Your task to perform on an android device: Go to Amazon Image 0: 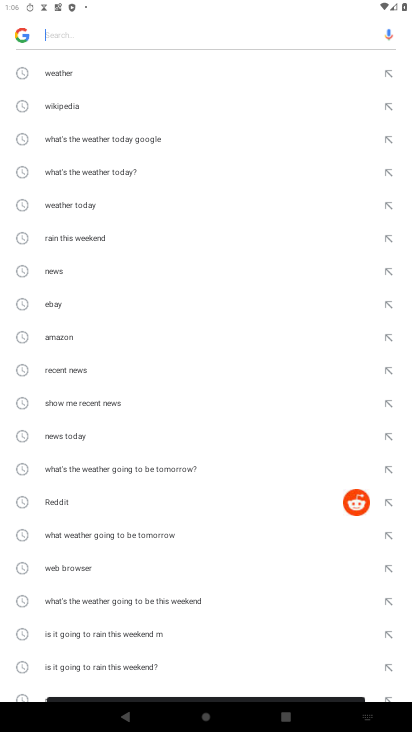
Step 0: press home button
Your task to perform on an android device: Go to Amazon Image 1: 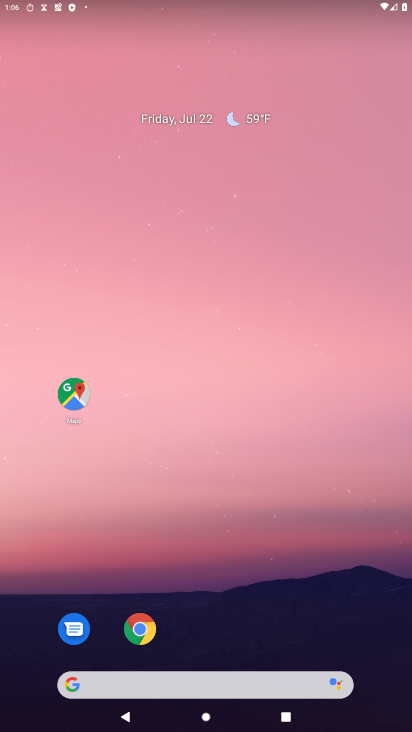
Step 1: drag from (198, 676) to (177, 24)
Your task to perform on an android device: Go to Amazon Image 2: 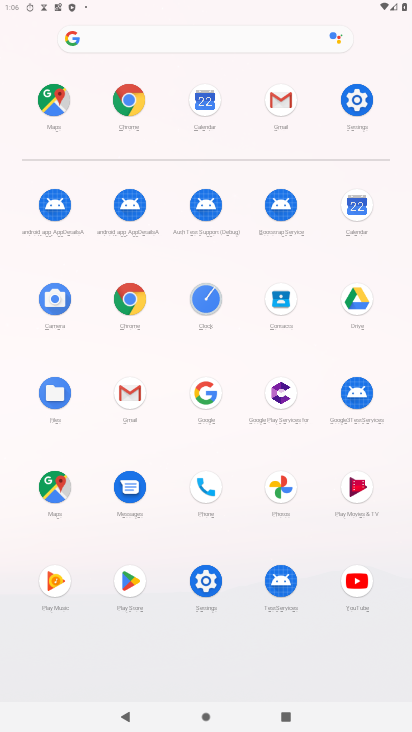
Step 2: click (127, 292)
Your task to perform on an android device: Go to Amazon Image 3: 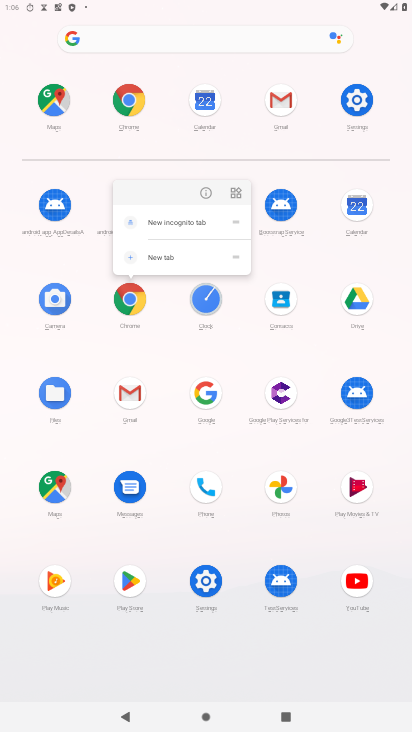
Step 3: click (127, 292)
Your task to perform on an android device: Go to Amazon Image 4: 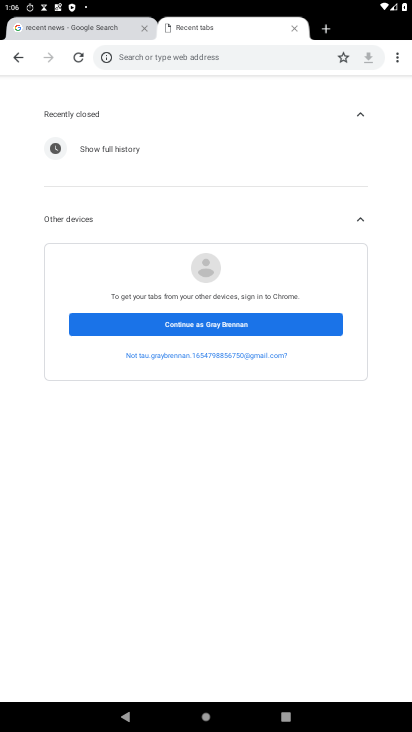
Step 4: click (144, 55)
Your task to perform on an android device: Go to Amazon Image 5: 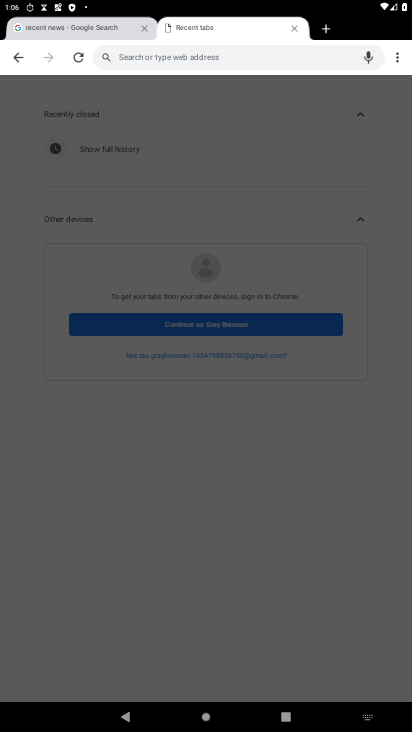
Step 5: type "amazon"
Your task to perform on an android device: Go to Amazon Image 6: 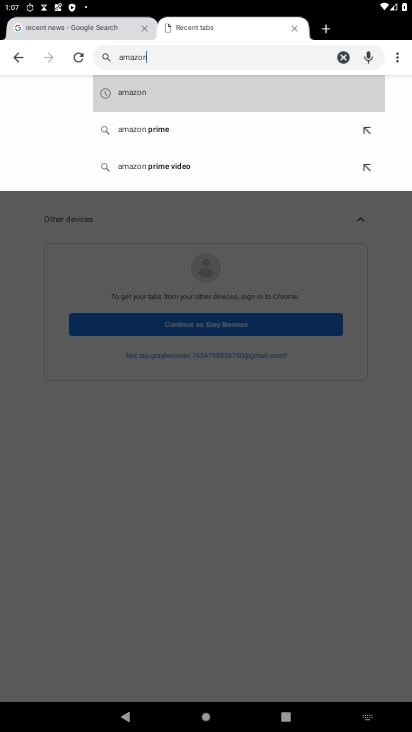
Step 6: click (189, 89)
Your task to perform on an android device: Go to Amazon Image 7: 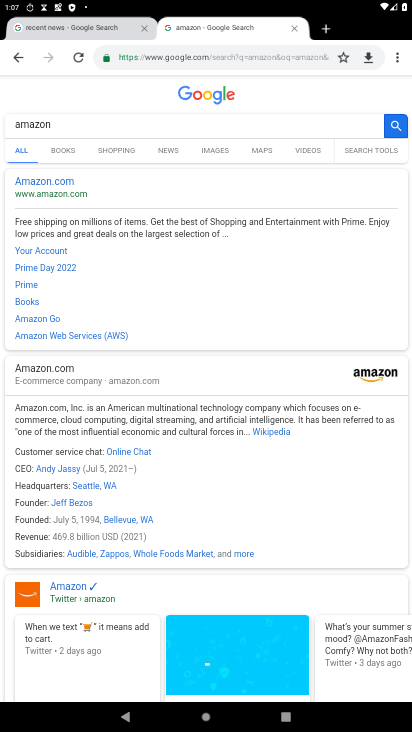
Step 7: task complete